Your task to perform on an android device: What's the weather? Image 0: 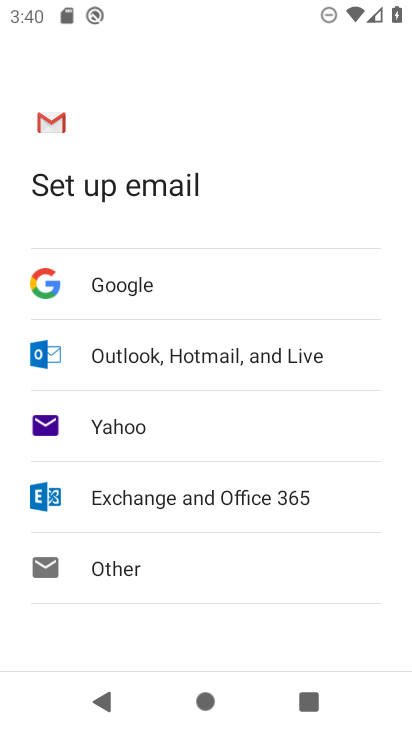
Step 0: press home button
Your task to perform on an android device: What's the weather? Image 1: 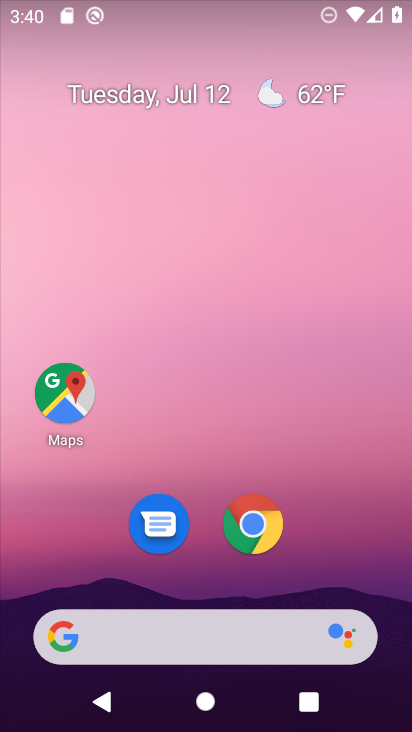
Step 1: click (249, 644)
Your task to perform on an android device: What's the weather? Image 2: 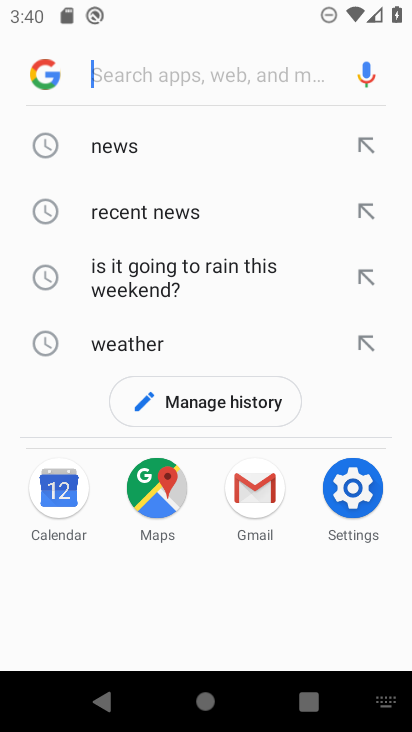
Step 2: click (134, 339)
Your task to perform on an android device: What's the weather? Image 3: 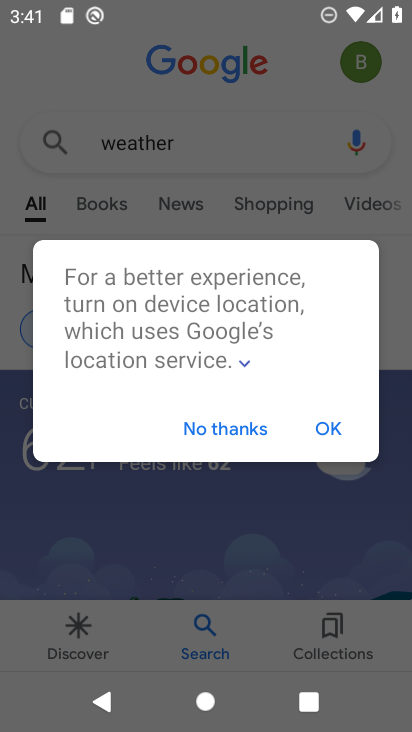
Step 3: click (328, 430)
Your task to perform on an android device: What's the weather? Image 4: 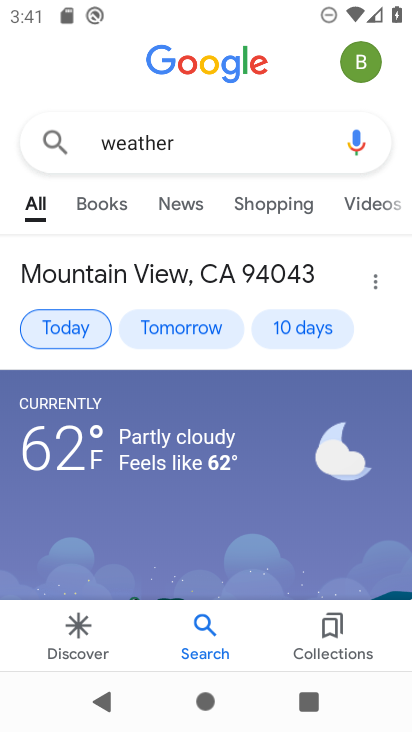
Step 4: click (57, 330)
Your task to perform on an android device: What's the weather? Image 5: 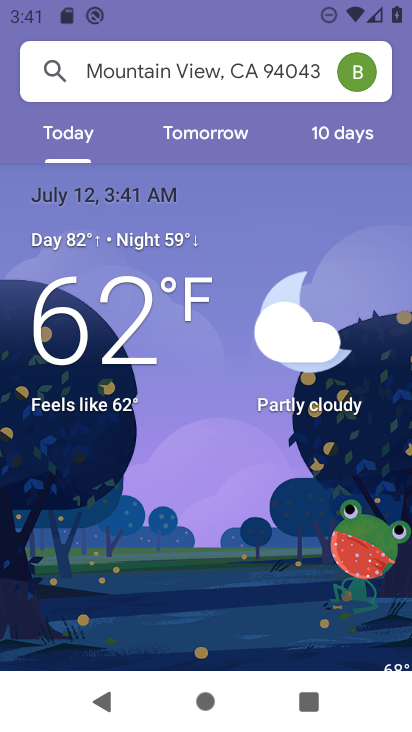
Step 5: task complete